Your task to perform on an android device: turn off sleep mode Image 0: 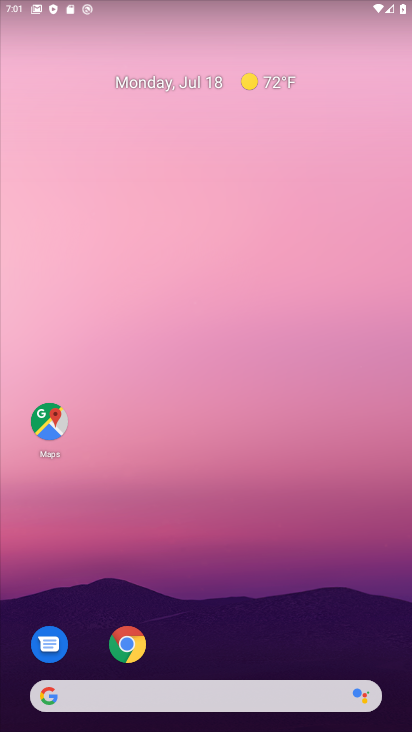
Step 0: drag from (336, 529) to (179, 70)
Your task to perform on an android device: turn off sleep mode Image 1: 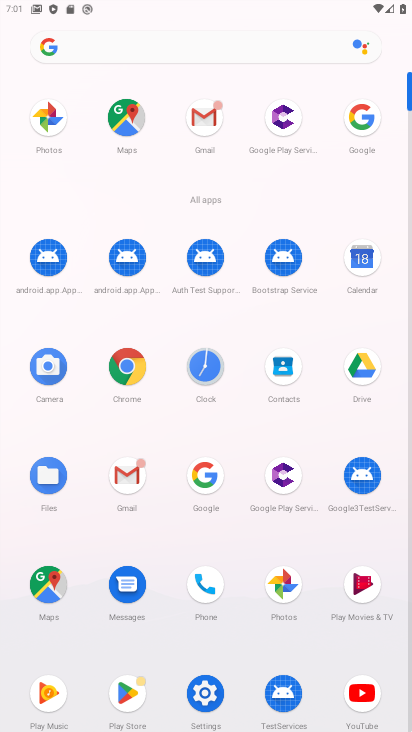
Step 1: click (209, 680)
Your task to perform on an android device: turn off sleep mode Image 2: 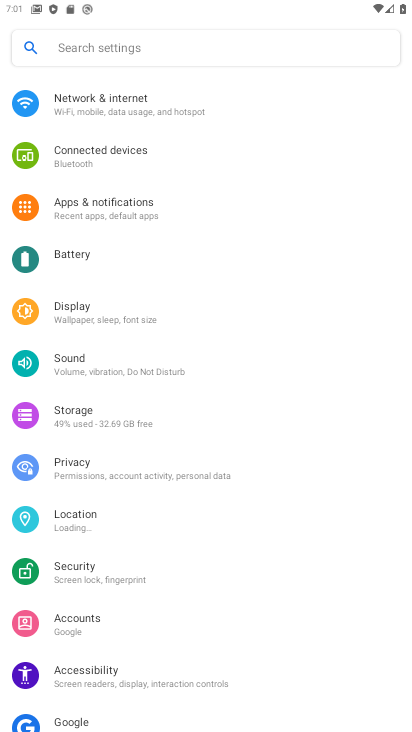
Step 2: task complete